Your task to perform on an android device: turn off data saver in the chrome app Image 0: 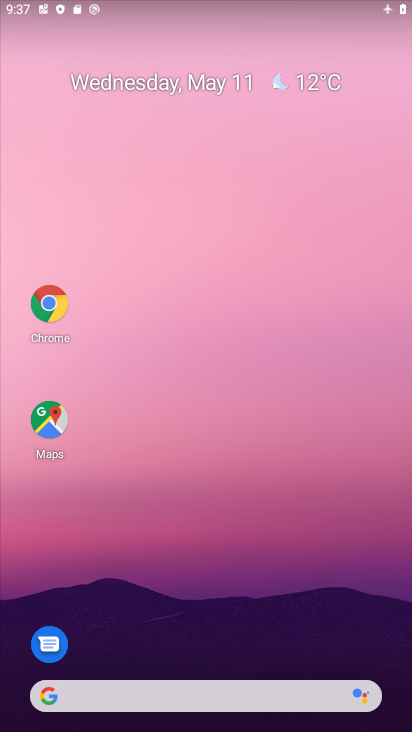
Step 0: click (42, 297)
Your task to perform on an android device: turn off data saver in the chrome app Image 1: 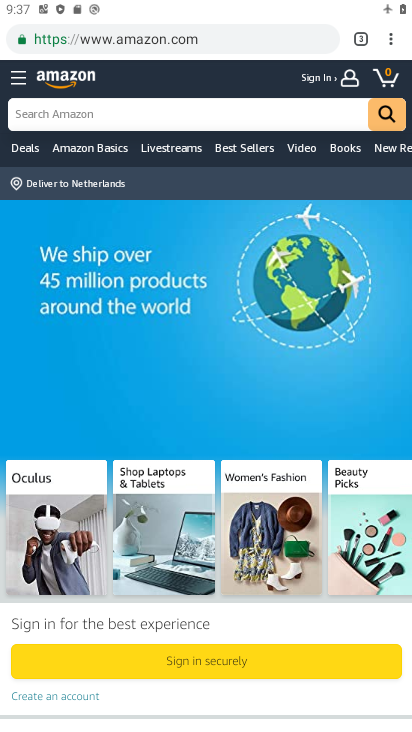
Step 1: click (393, 37)
Your task to perform on an android device: turn off data saver in the chrome app Image 2: 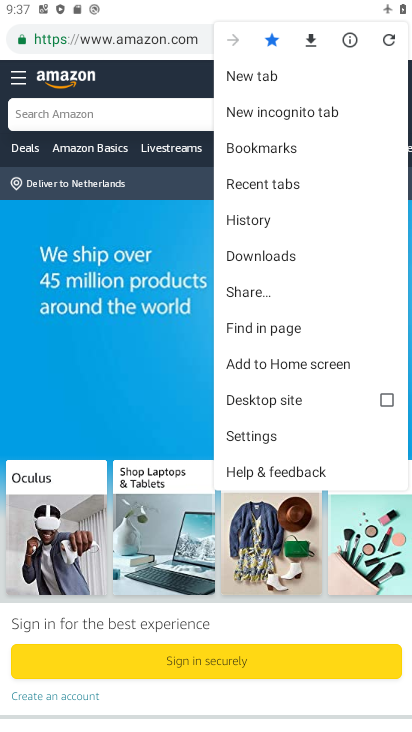
Step 2: click (255, 430)
Your task to perform on an android device: turn off data saver in the chrome app Image 3: 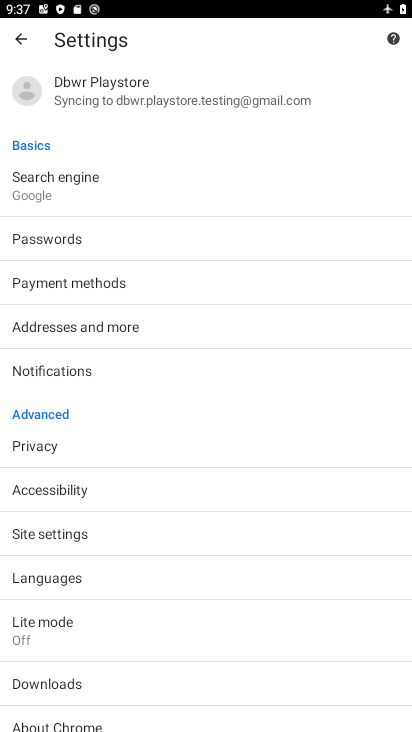
Step 3: click (40, 639)
Your task to perform on an android device: turn off data saver in the chrome app Image 4: 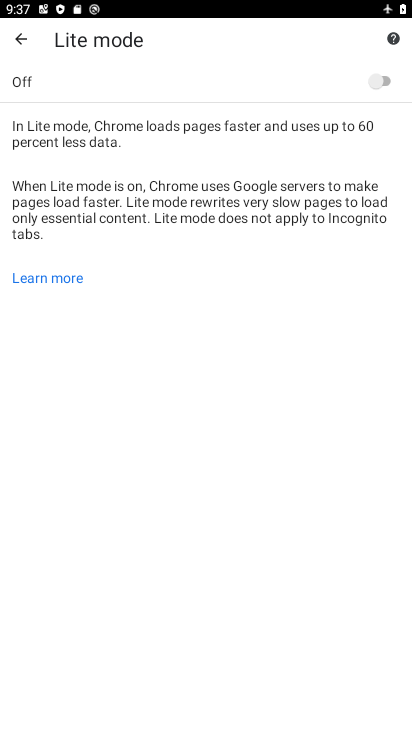
Step 4: task complete